Your task to perform on an android device: see sites visited before in the chrome app Image 0: 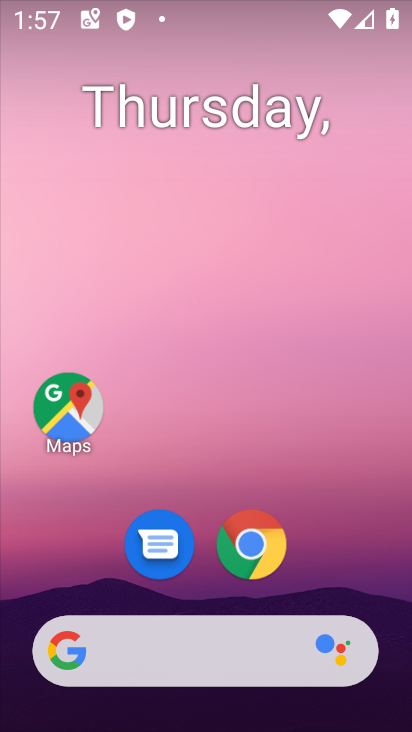
Step 0: click (245, 552)
Your task to perform on an android device: see sites visited before in the chrome app Image 1: 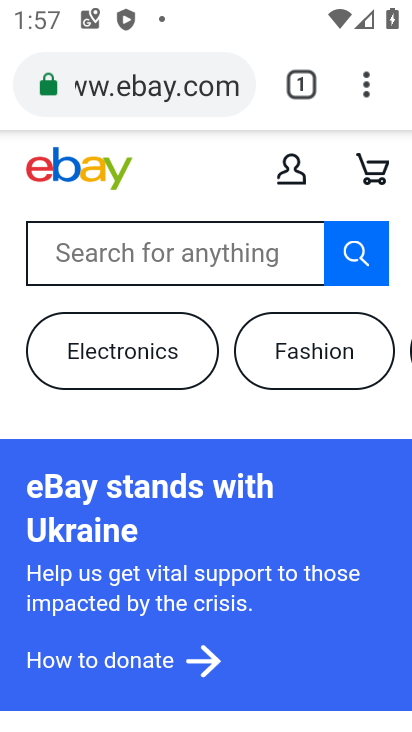
Step 1: click (365, 96)
Your task to perform on an android device: see sites visited before in the chrome app Image 2: 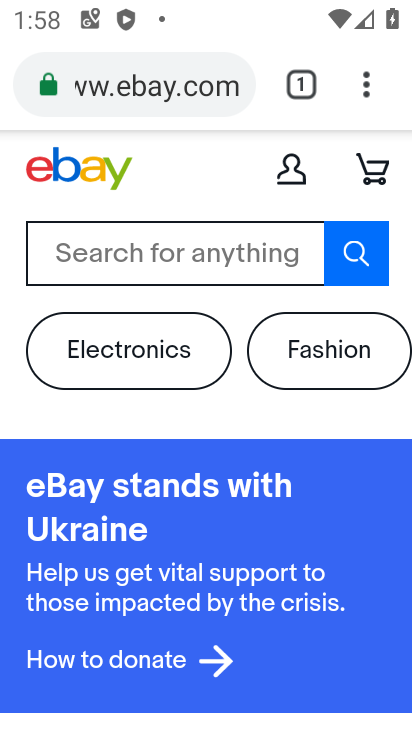
Step 2: click (376, 102)
Your task to perform on an android device: see sites visited before in the chrome app Image 3: 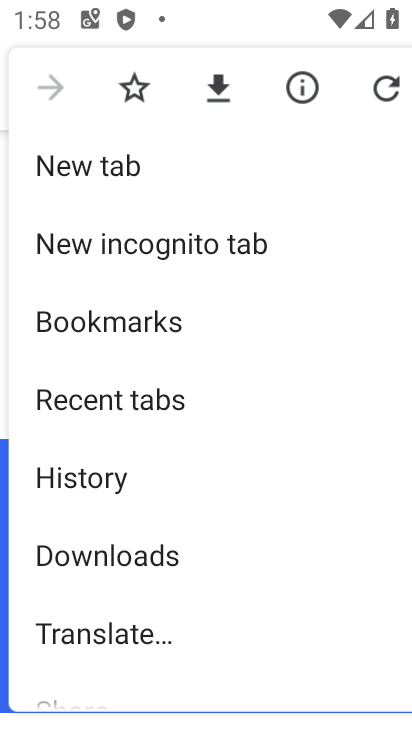
Step 3: click (184, 387)
Your task to perform on an android device: see sites visited before in the chrome app Image 4: 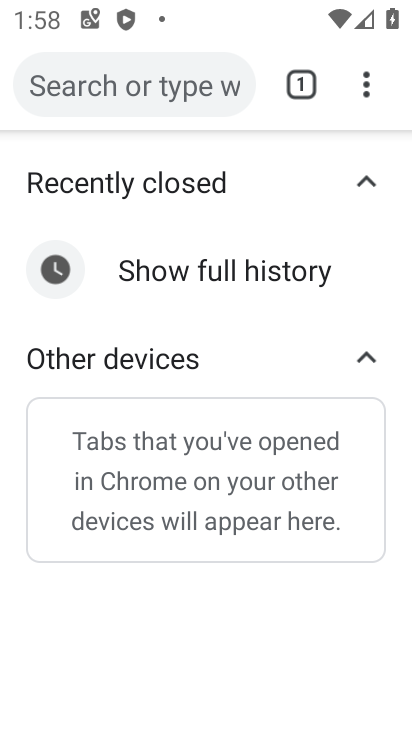
Step 4: click (272, 278)
Your task to perform on an android device: see sites visited before in the chrome app Image 5: 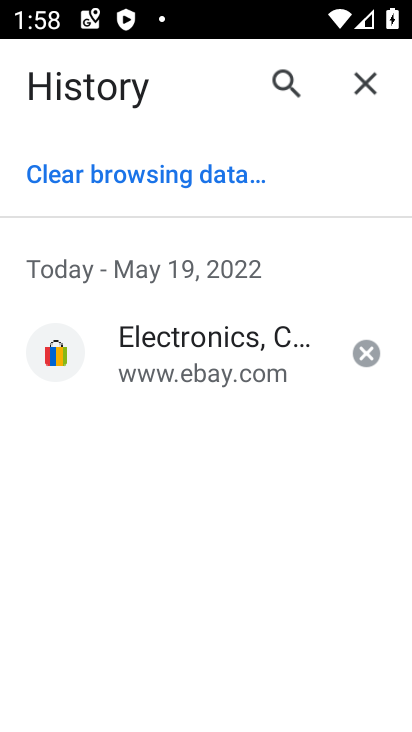
Step 5: task complete